Your task to perform on an android device: Play the last video I watched on Youtube Image 0: 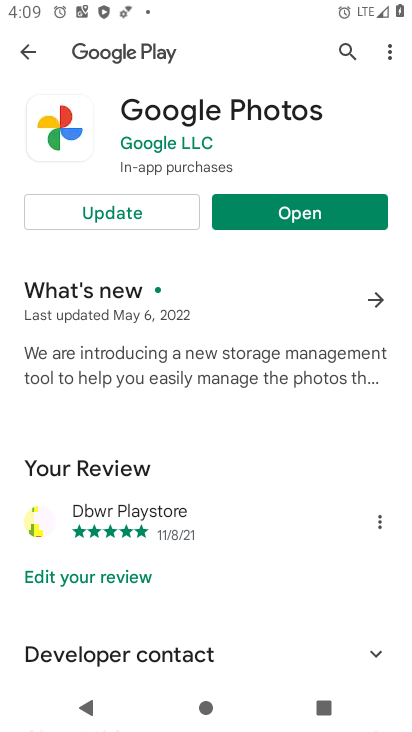
Step 0: press home button
Your task to perform on an android device: Play the last video I watched on Youtube Image 1: 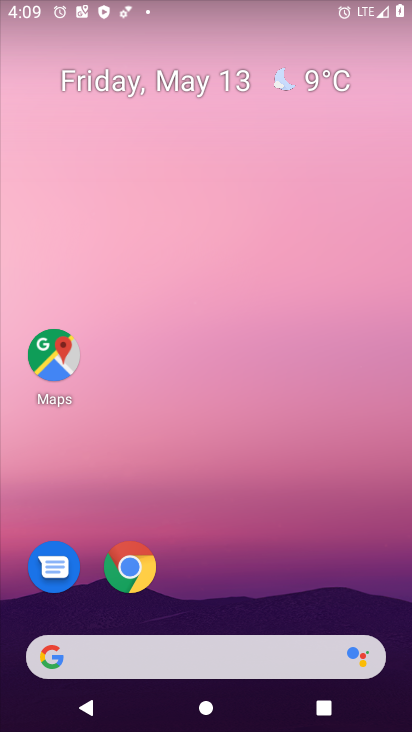
Step 1: drag from (274, 559) to (283, 55)
Your task to perform on an android device: Play the last video I watched on Youtube Image 2: 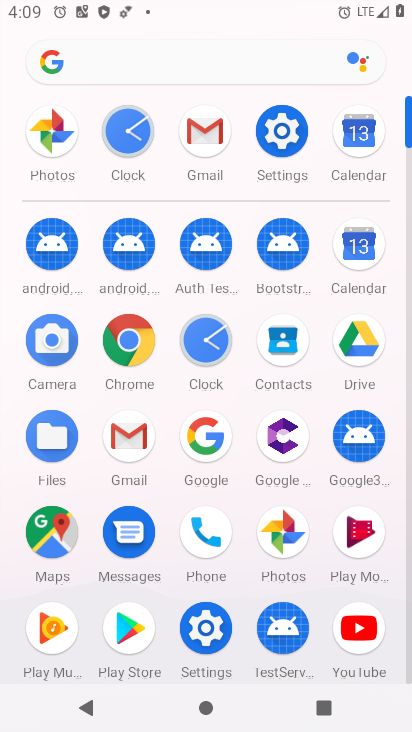
Step 2: click (363, 633)
Your task to perform on an android device: Play the last video I watched on Youtube Image 3: 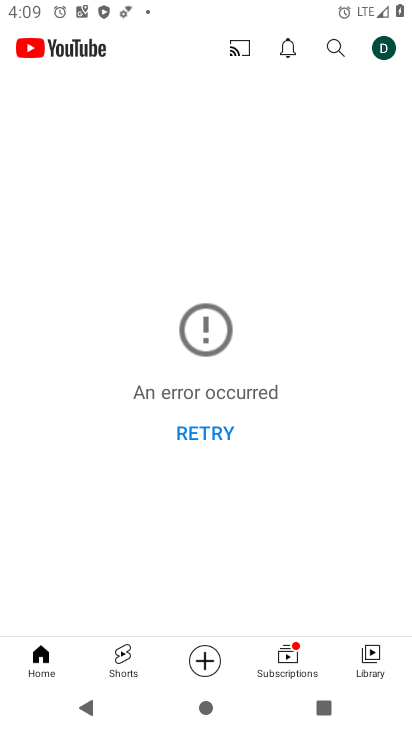
Step 3: click (370, 656)
Your task to perform on an android device: Play the last video I watched on Youtube Image 4: 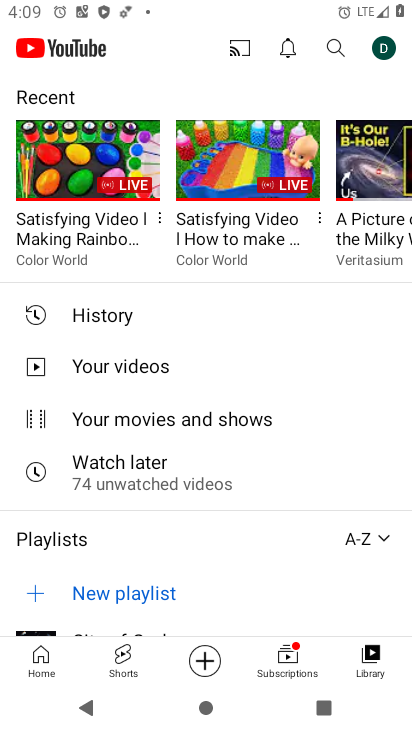
Step 4: click (117, 317)
Your task to perform on an android device: Play the last video I watched on Youtube Image 5: 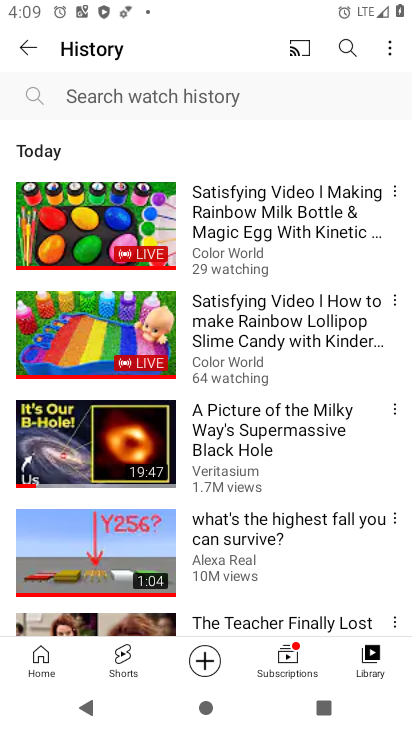
Step 5: click (122, 217)
Your task to perform on an android device: Play the last video I watched on Youtube Image 6: 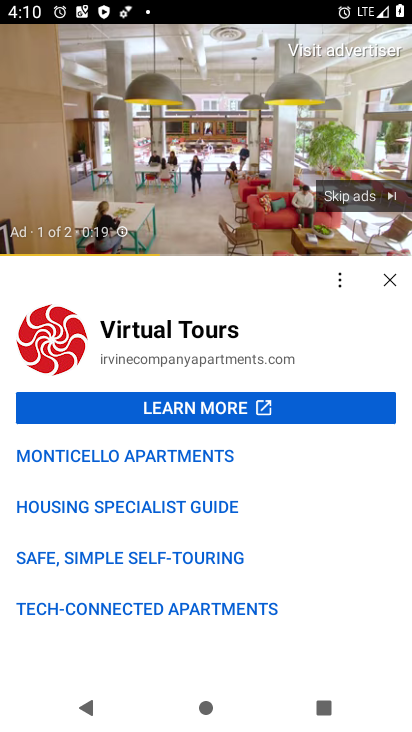
Step 6: click (345, 191)
Your task to perform on an android device: Play the last video I watched on Youtube Image 7: 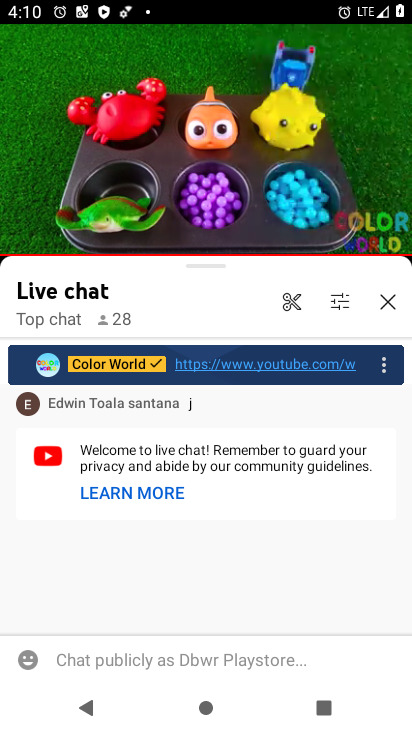
Step 7: click (211, 152)
Your task to perform on an android device: Play the last video I watched on Youtube Image 8: 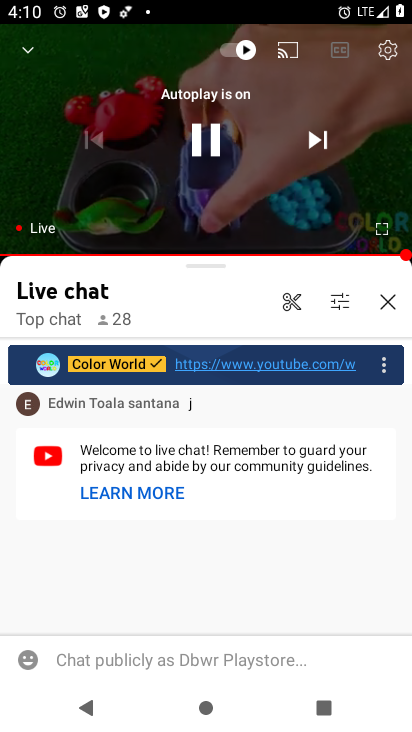
Step 8: click (207, 141)
Your task to perform on an android device: Play the last video I watched on Youtube Image 9: 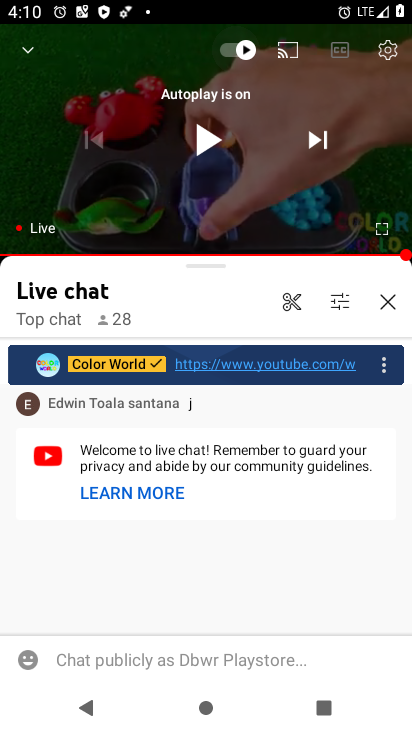
Step 9: task complete